Your task to perform on an android device: Show me recent news Image 0: 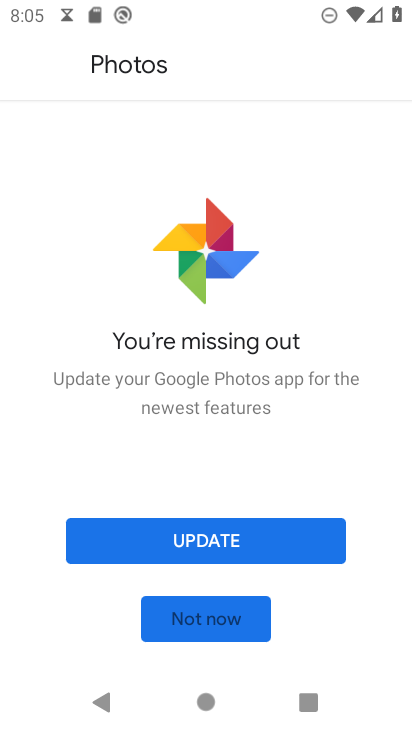
Step 0: press home button
Your task to perform on an android device: Show me recent news Image 1: 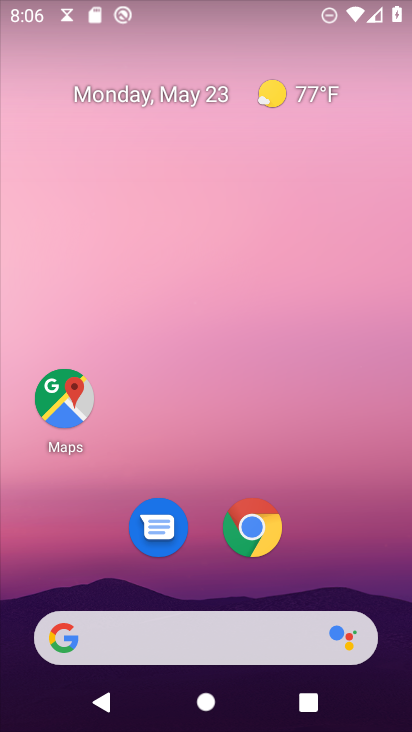
Step 1: click (260, 641)
Your task to perform on an android device: Show me recent news Image 2: 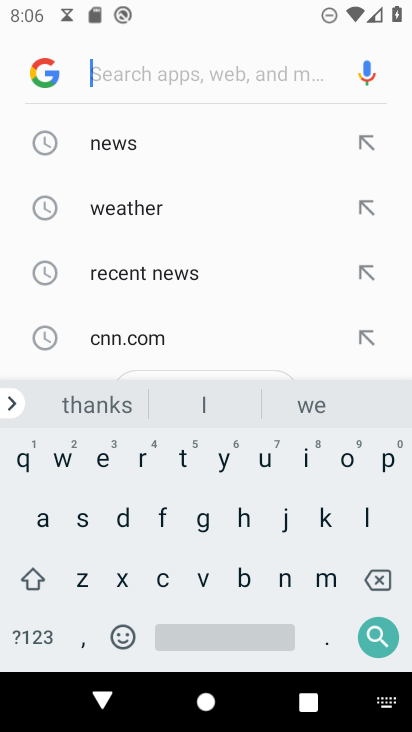
Step 2: click (138, 269)
Your task to perform on an android device: Show me recent news Image 3: 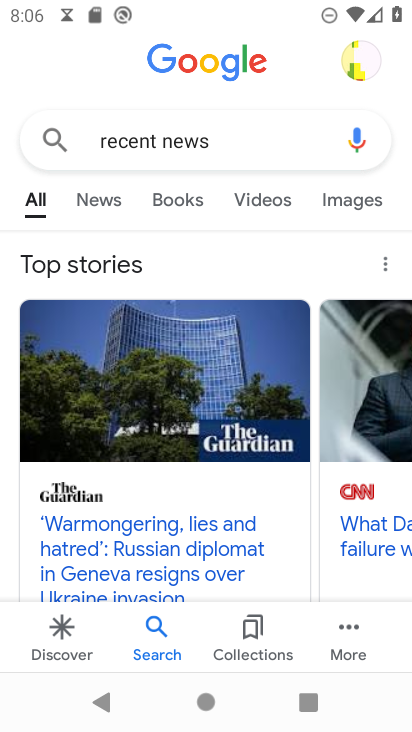
Step 3: task complete